Your task to perform on an android device: Open the phone app and click the voicemail tab. Image 0: 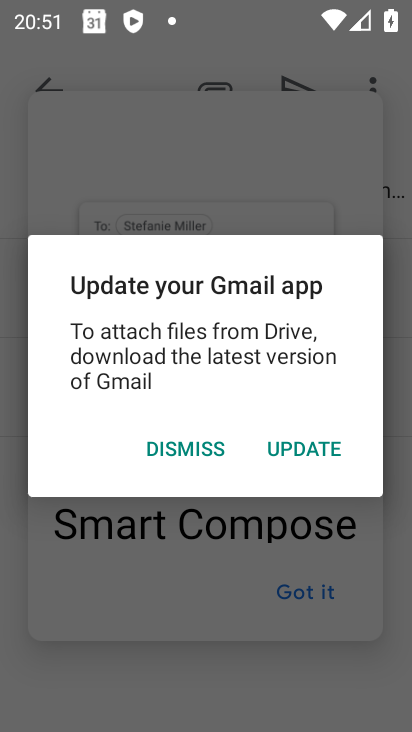
Step 0: press home button
Your task to perform on an android device: Open the phone app and click the voicemail tab. Image 1: 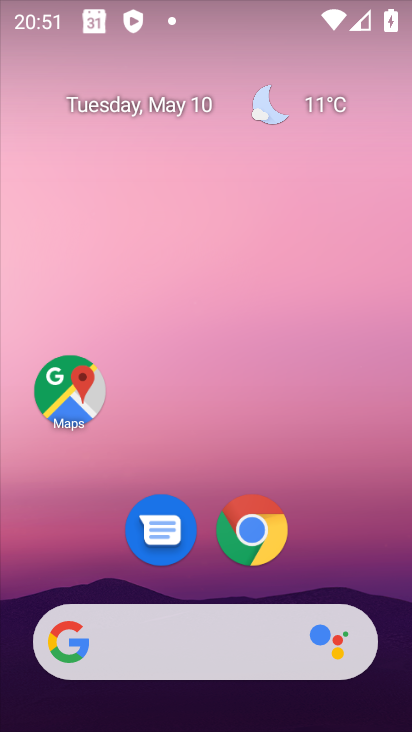
Step 1: drag from (347, 513) to (358, 235)
Your task to perform on an android device: Open the phone app and click the voicemail tab. Image 2: 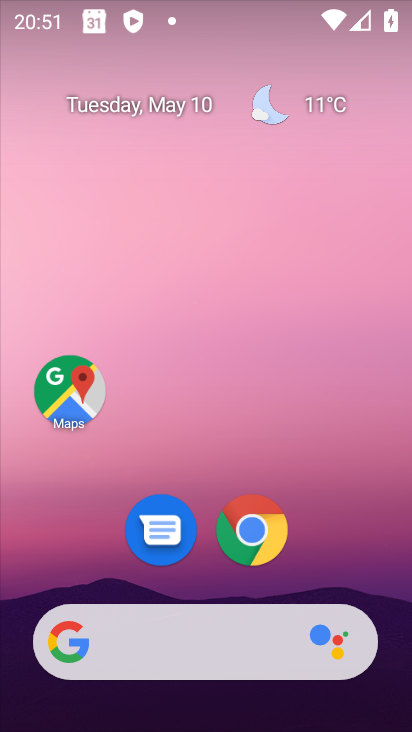
Step 2: drag from (373, 558) to (352, 201)
Your task to perform on an android device: Open the phone app and click the voicemail tab. Image 3: 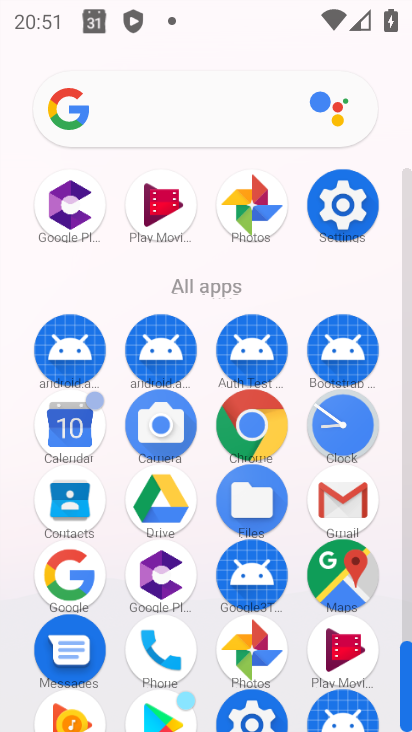
Step 3: click (157, 656)
Your task to perform on an android device: Open the phone app and click the voicemail tab. Image 4: 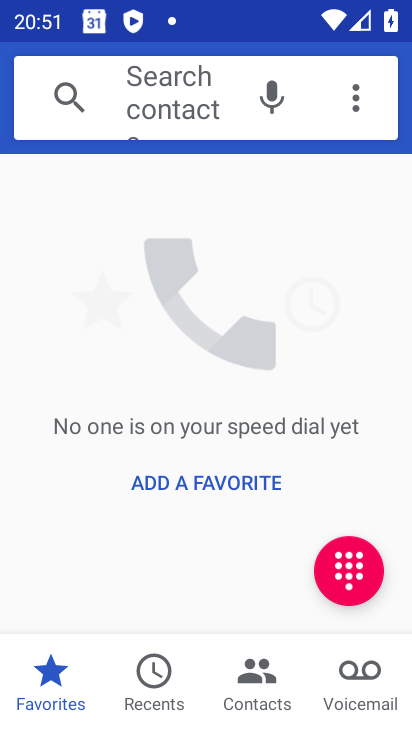
Step 4: click (357, 690)
Your task to perform on an android device: Open the phone app and click the voicemail tab. Image 5: 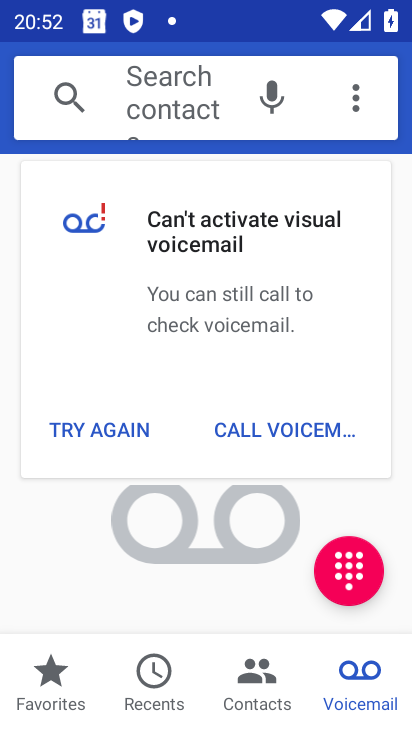
Step 5: task complete